Your task to perform on an android device: read, delete, or share a saved page in the chrome app Image 0: 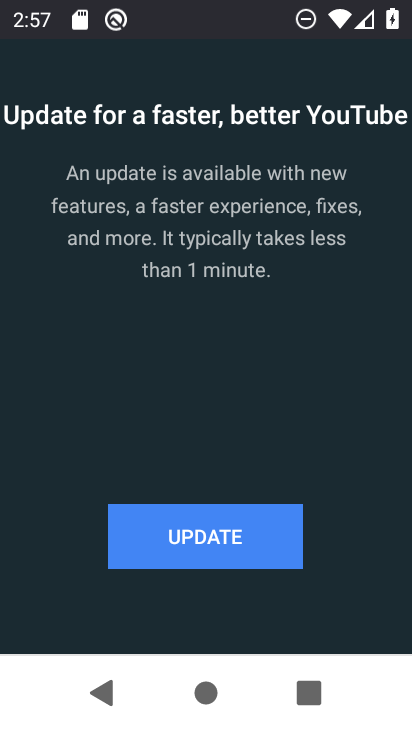
Step 0: press home button
Your task to perform on an android device: read, delete, or share a saved page in the chrome app Image 1: 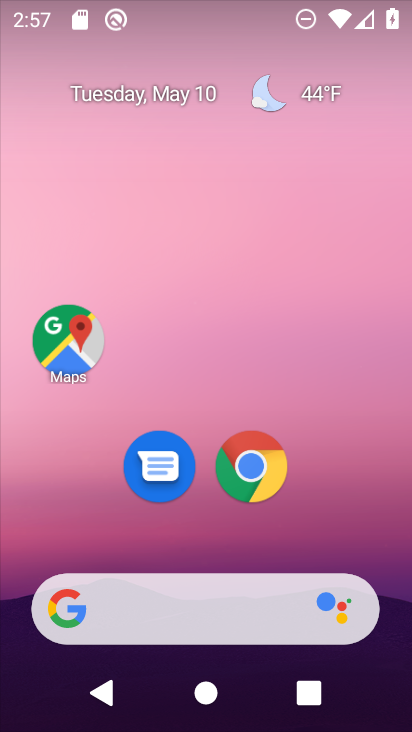
Step 1: click (254, 469)
Your task to perform on an android device: read, delete, or share a saved page in the chrome app Image 2: 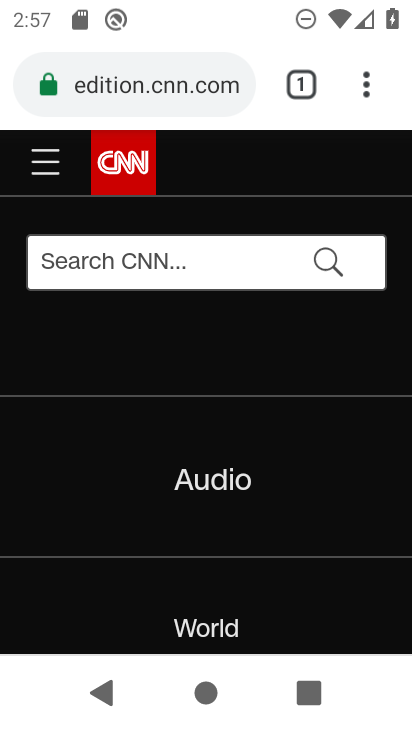
Step 2: click (364, 103)
Your task to perform on an android device: read, delete, or share a saved page in the chrome app Image 3: 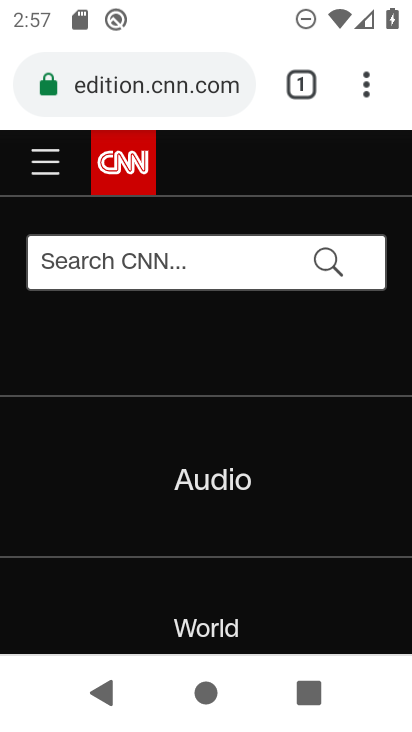
Step 3: click (386, 93)
Your task to perform on an android device: read, delete, or share a saved page in the chrome app Image 4: 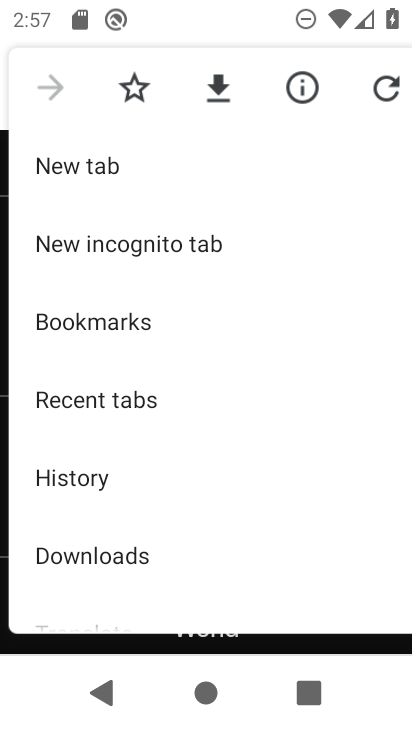
Step 4: click (109, 556)
Your task to perform on an android device: read, delete, or share a saved page in the chrome app Image 5: 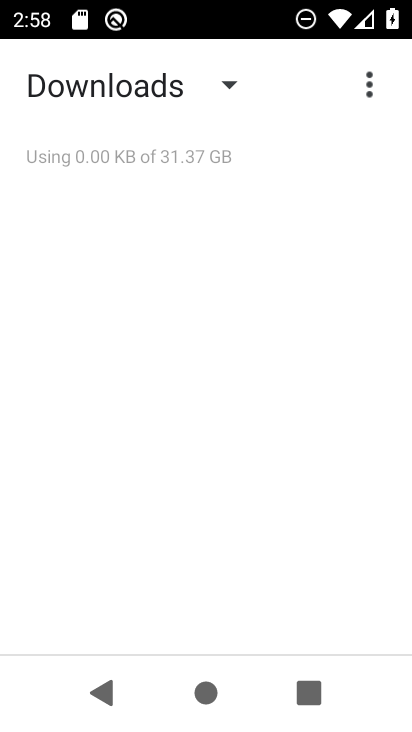
Step 5: click (172, 83)
Your task to perform on an android device: read, delete, or share a saved page in the chrome app Image 6: 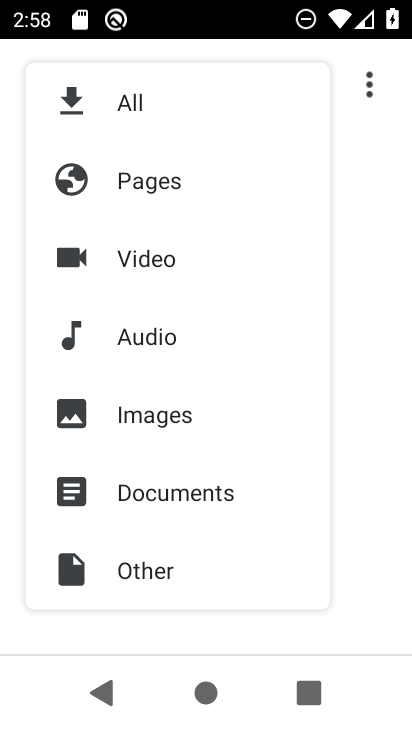
Step 6: click (162, 193)
Your task to perform on an android device: read, delete, or share a saved page in the chrome app Image 7: 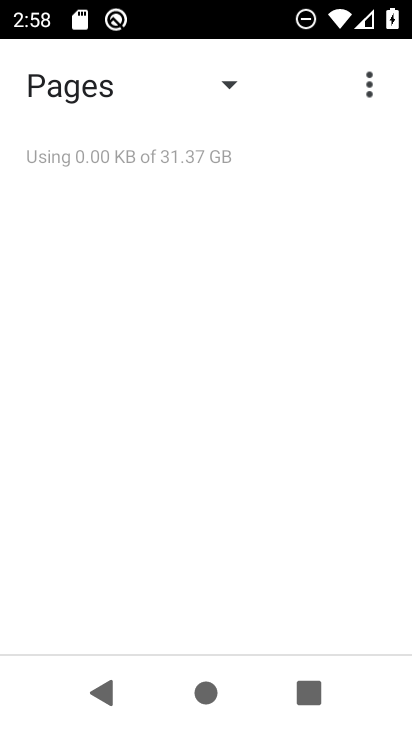
Step 7: task complete